Your task to perform on an android device: Open my contact list Image 0: 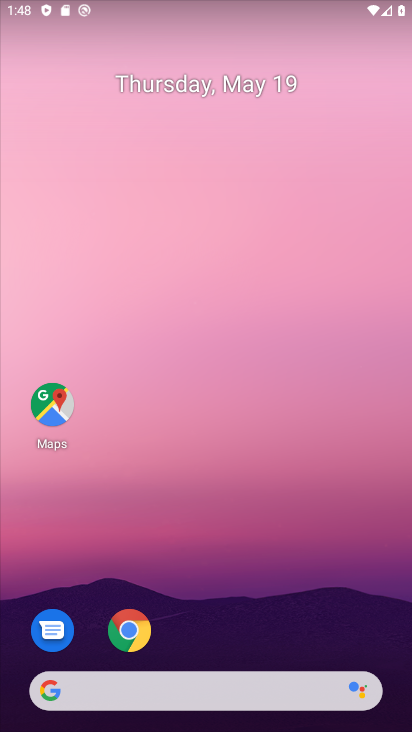
Step 0: drag from (216, 547) to (204, 85)
Your task to perform on an android device: Open my contact list Image 1: 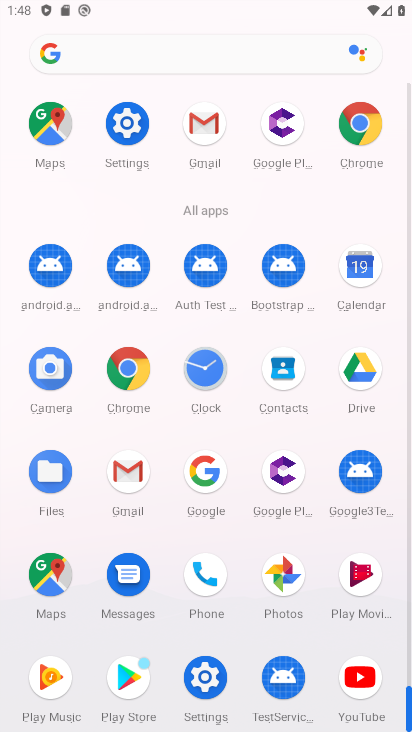
Step 1: drag from (8, 500) to (28, 257)
Your task to perform on an android device: Open my contact list Image 2: 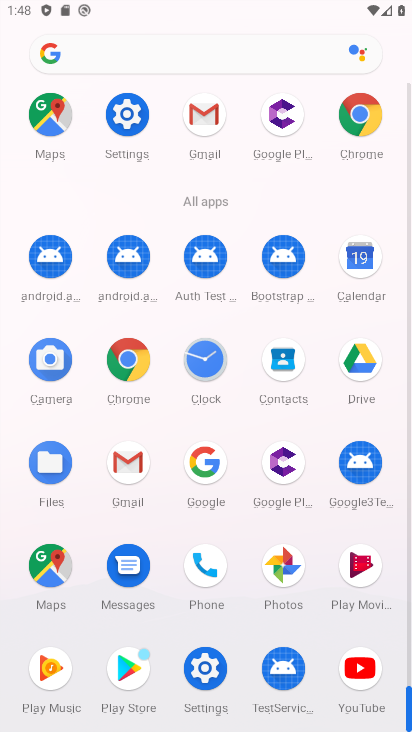
Step 2: click (282, 349)
Your task to perform on an android device: Open my contact list Image 3: 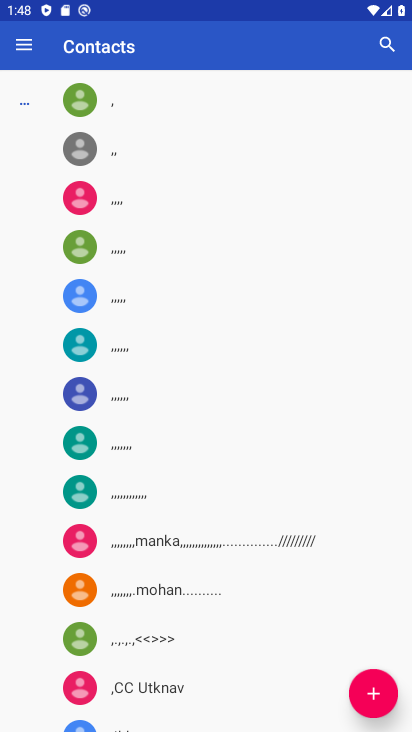
Step 3: task complete